Your task to perform on an android device: turn off translation in the chrome app Image 0: 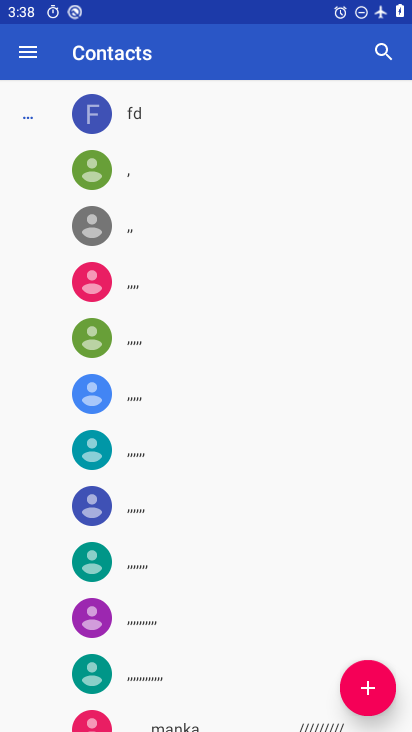
Step 0: press back button
Your task to perform on an android device: turn off translation in the chrome app Image 1: 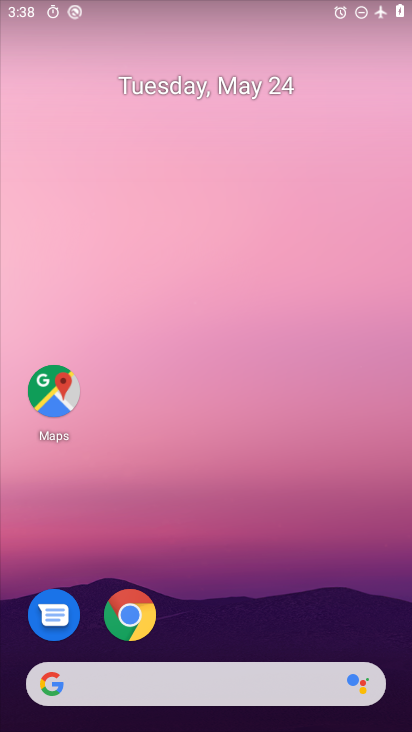
Step 1: click (130, 610)
Your task to perform on an android device: turn off translation in the chrome app Image 2: 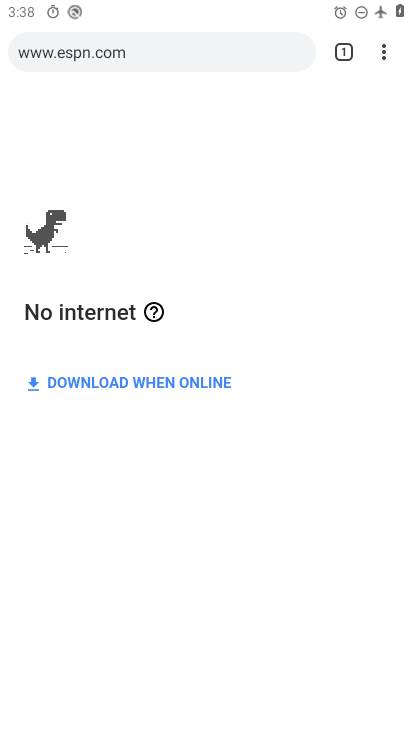
Step 2: click (384, 64)
Your task to perform on an android device: turn off translation in the chrome app Image 3: 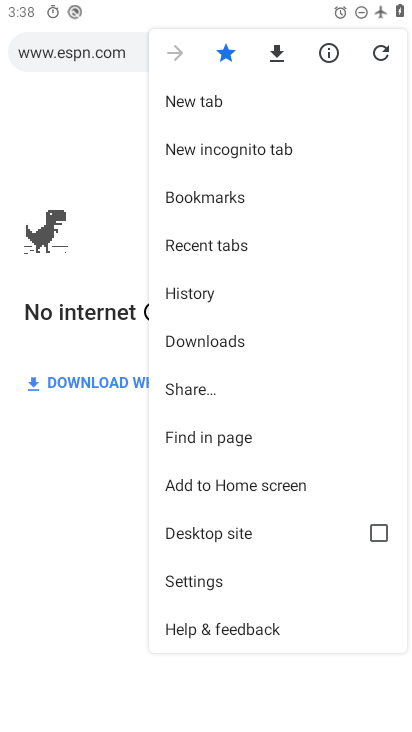
Step 3: click (209, 569)
Your task to perform on an android device: turn off translation in the chrome app Image 4: 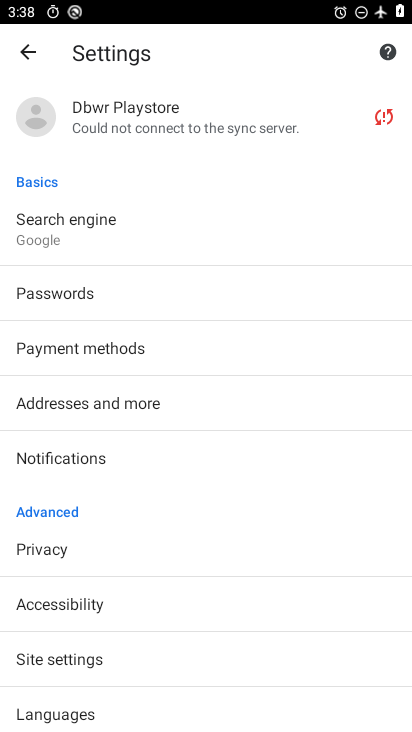
Step 4: click (81, 714)
Your task to perform on an android device: turn off translation in the chrome app Image 5: 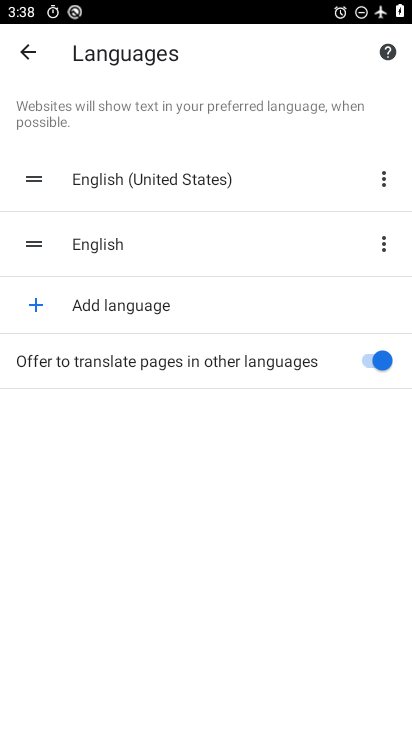
Step 5: click (362, 363)
Your task to perform on an android device: turn off translation in the chrome app Image 6: 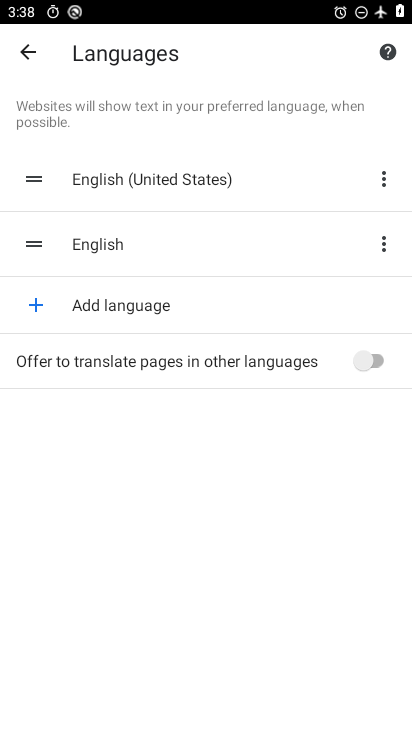
Step 6: task complete